Your task to perform on an android device: turn on notifications settings in the gmail app Image 0: 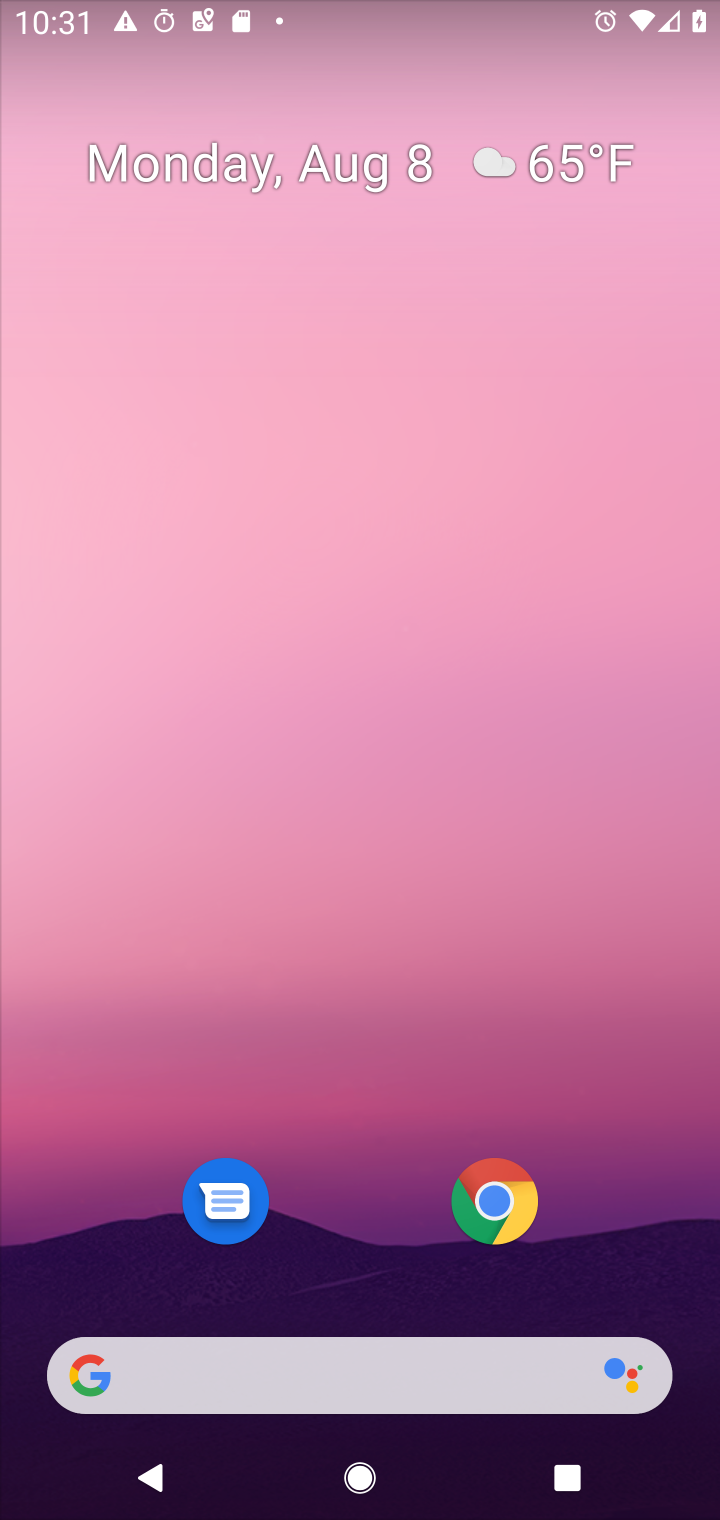
Step 0: press home button
Your task to perform on an android device: turn on notifications settings in the gmail app Image 1: 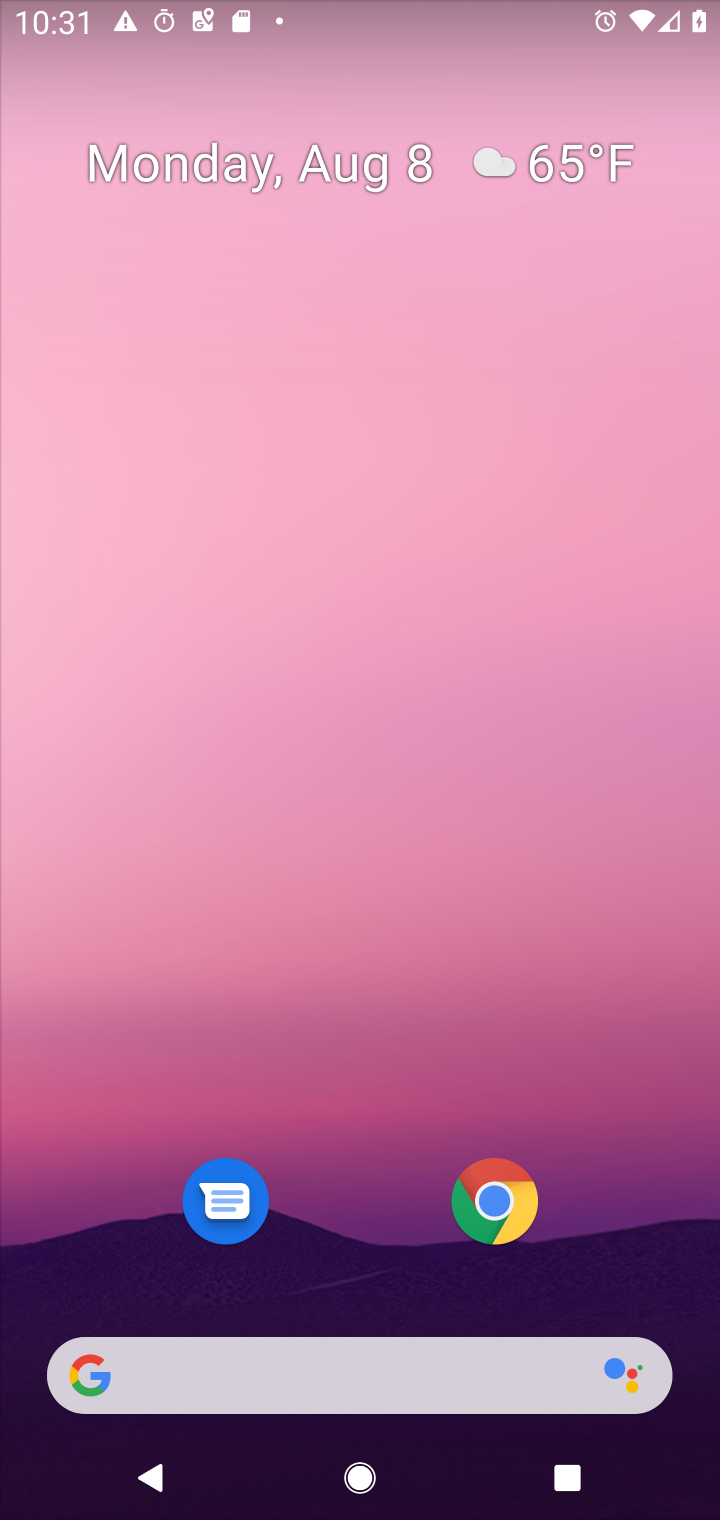
Step 1: drag from (382, 1112) to (390, 225)
Your task to perform on an android device: turn on notifications settings in the gmail app Image 2: 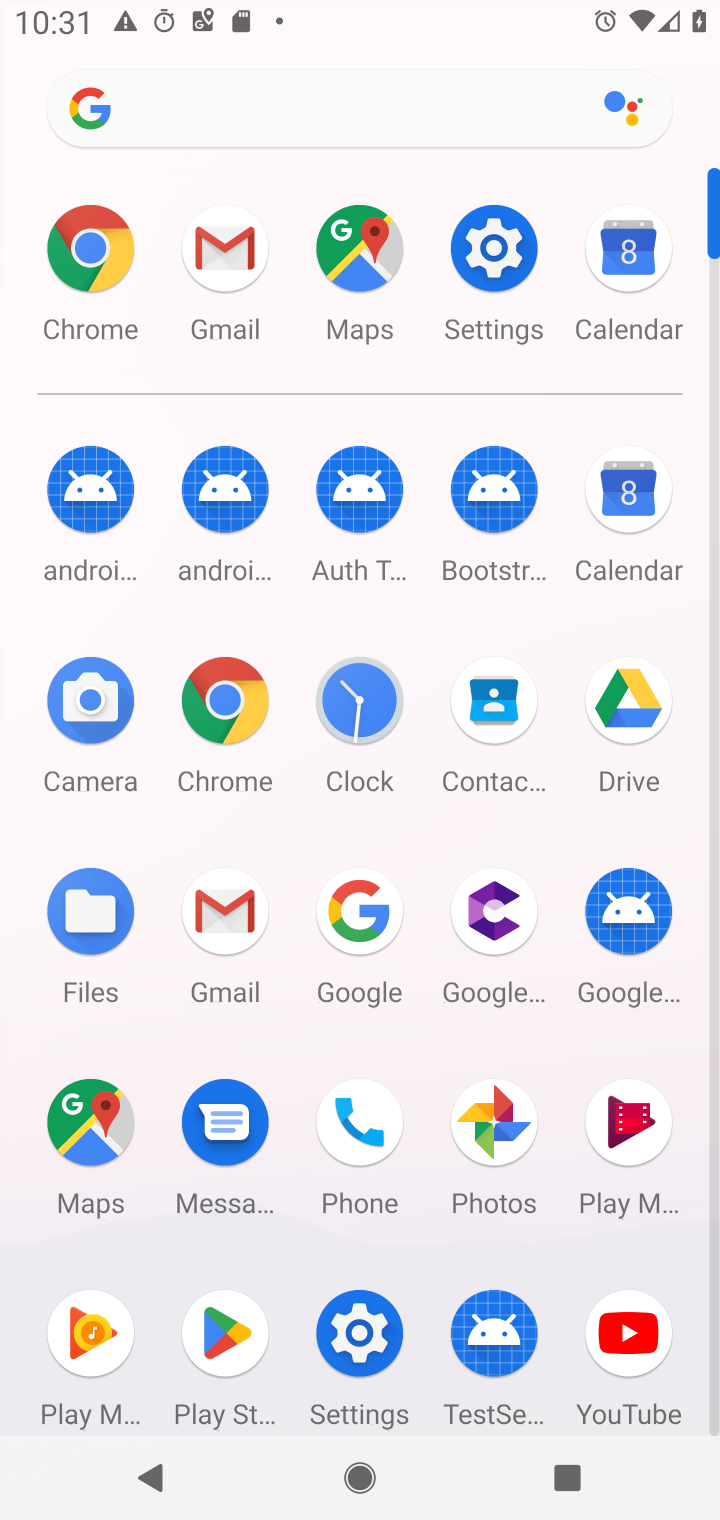
Step 2: click (216, 925)
Your task to perform on an android device: turn on notifications settings in the gmail app Image 3: 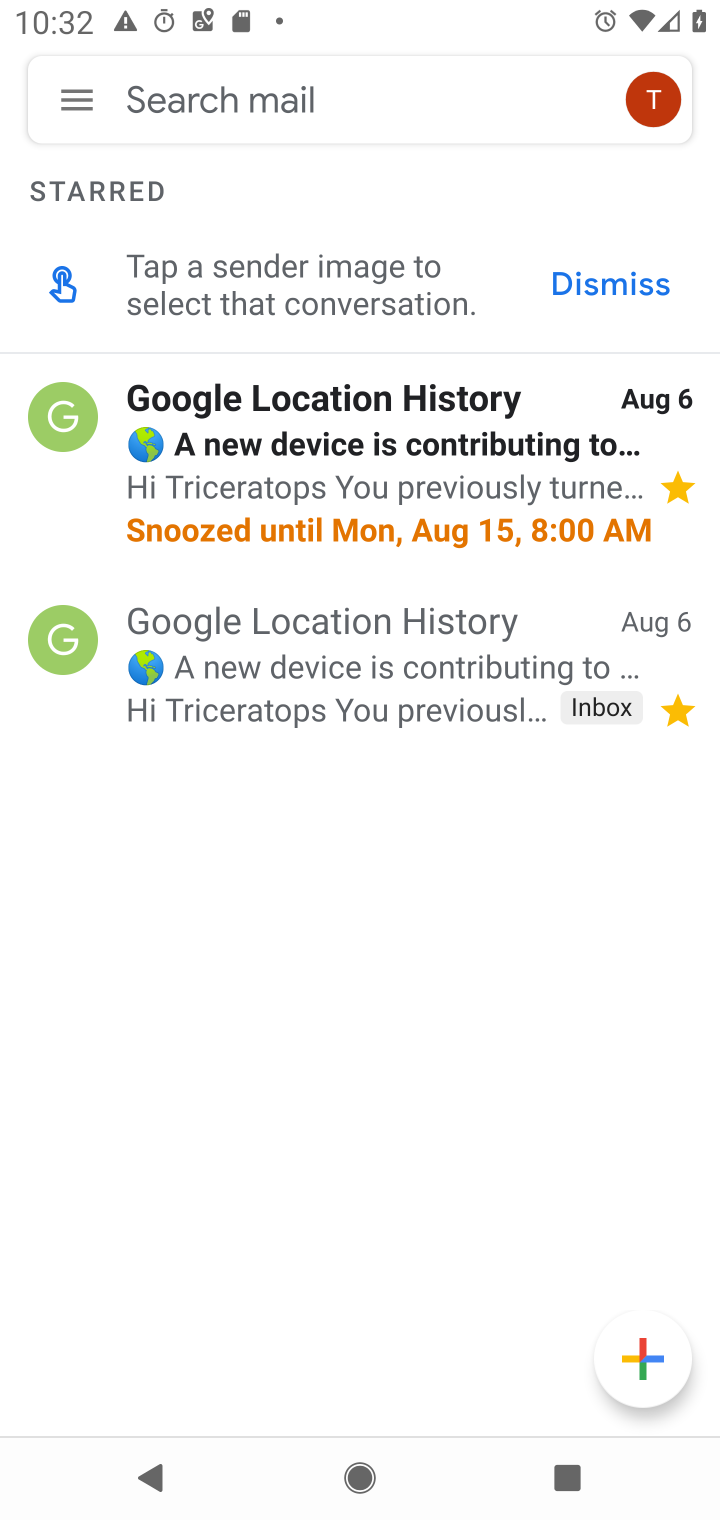
Step 3: click (78, 86)
Your task to perform on an android device: turn on notifications settings in the gmail app Image 4: 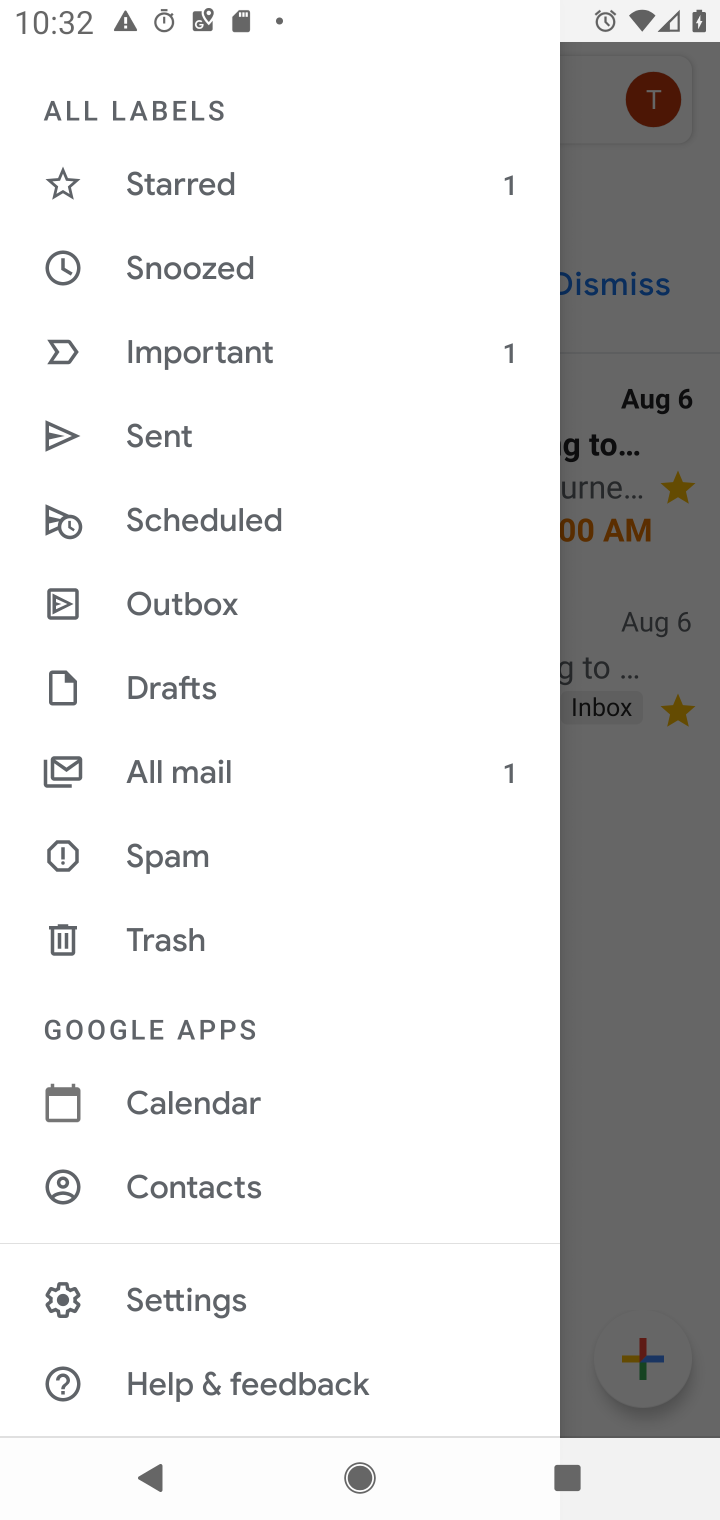
Step 4: drag from (410, 894) to (424, 585)
Your task to perform on an android device: turn on notifications settings in the gmail app Image 5: 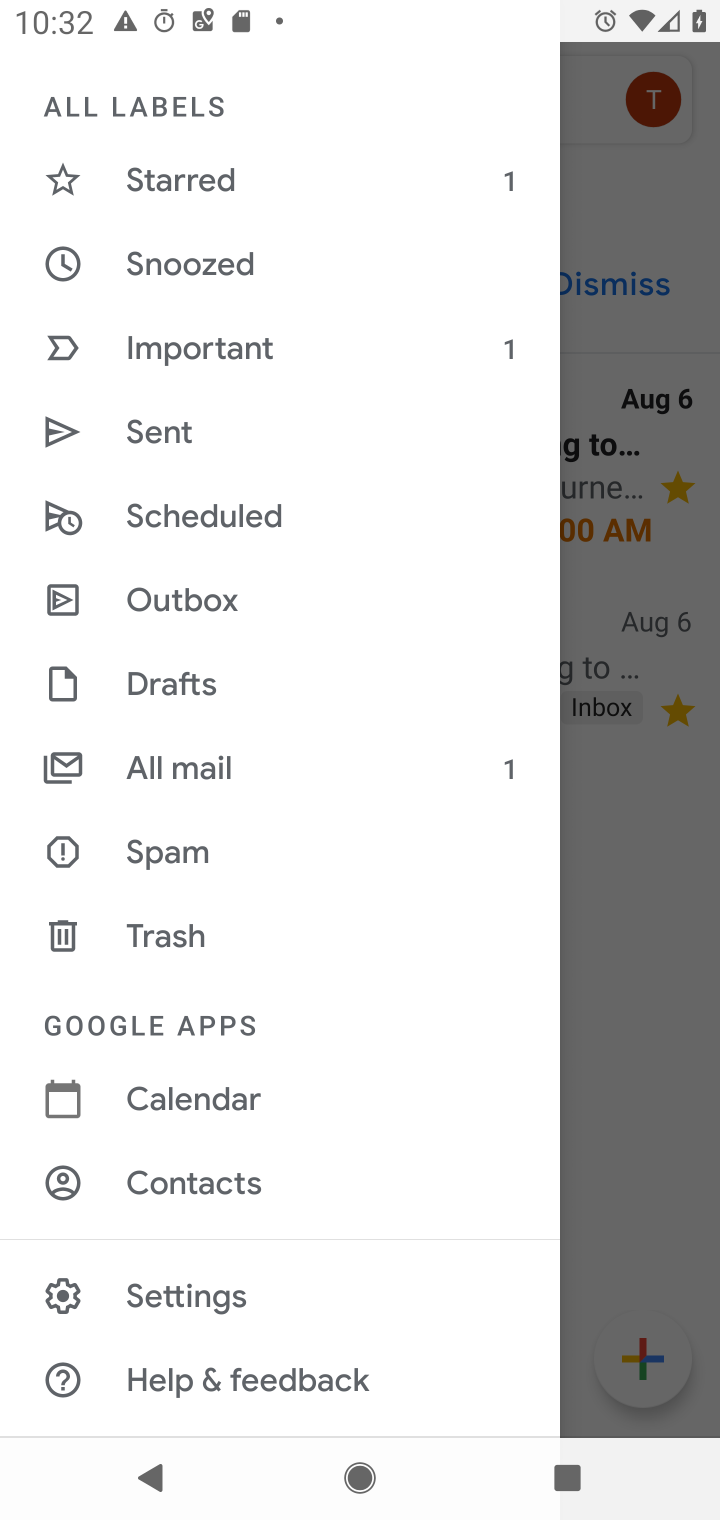
Step 5: click (257, 1290)
Your task to perform on an android device: turn on notifications settings in the gmail app Image 6: 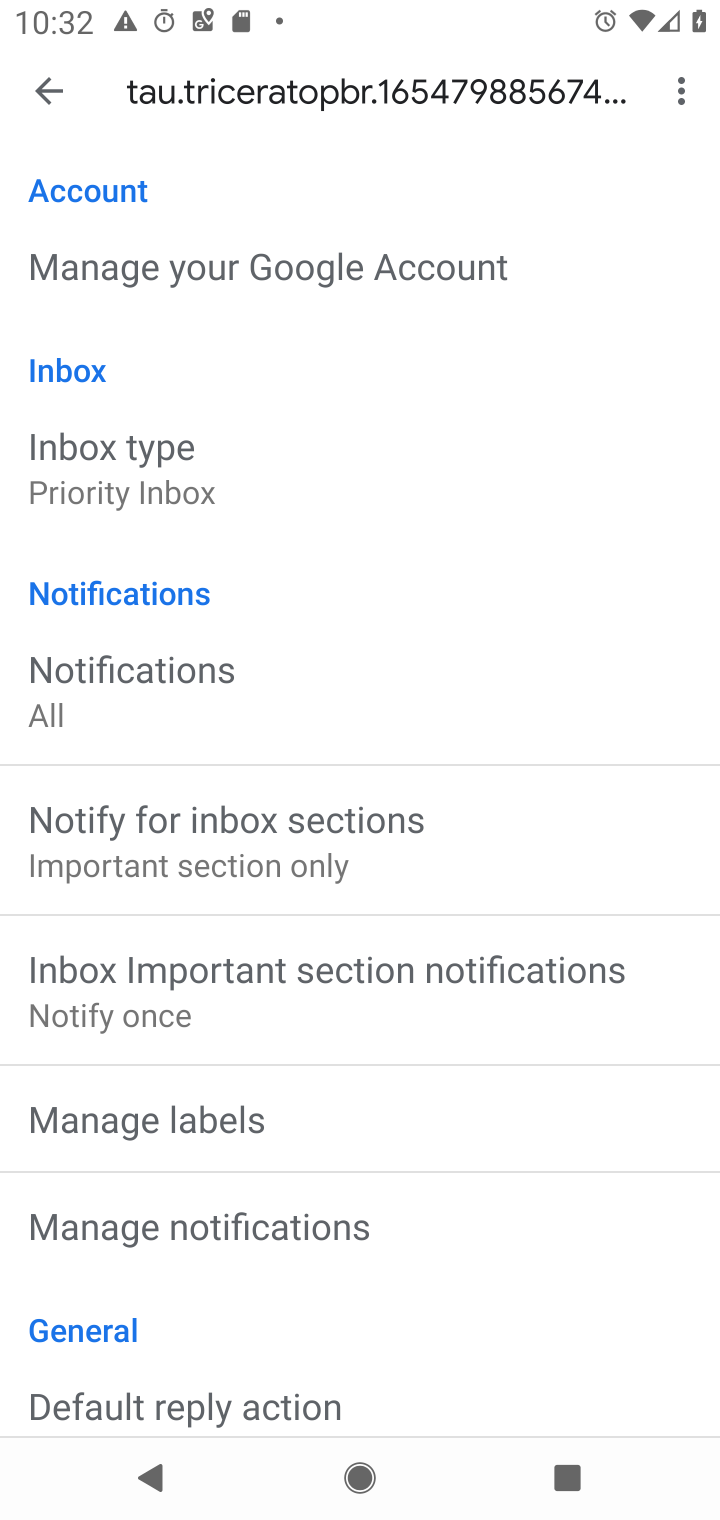
Step 6: click (412, 1225)
Your task to perform on an android device: turn on notifications settings in the gmail app Image 7: 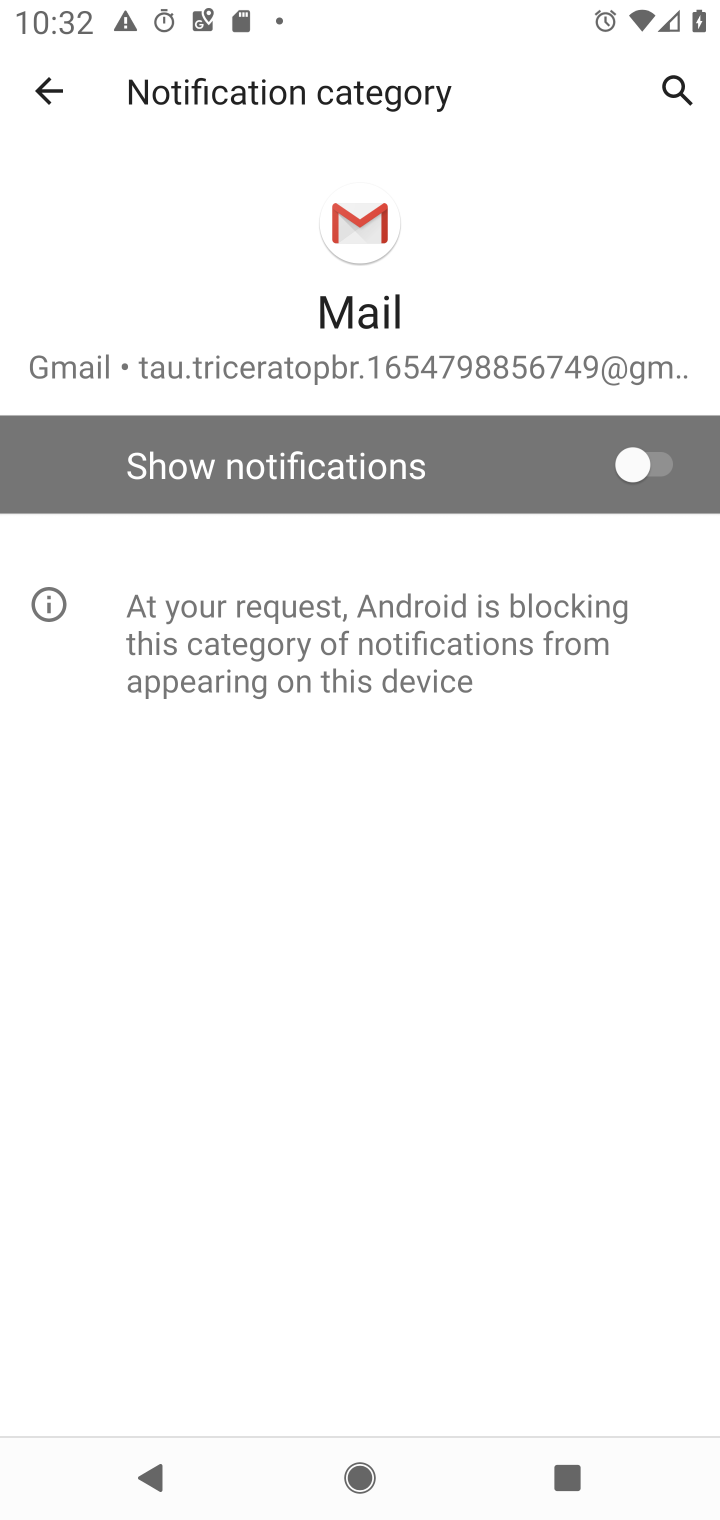
Step 7: click (629, 462)
Your task to perform on an android device: turn on notifications settings in the gmail app Image 8: 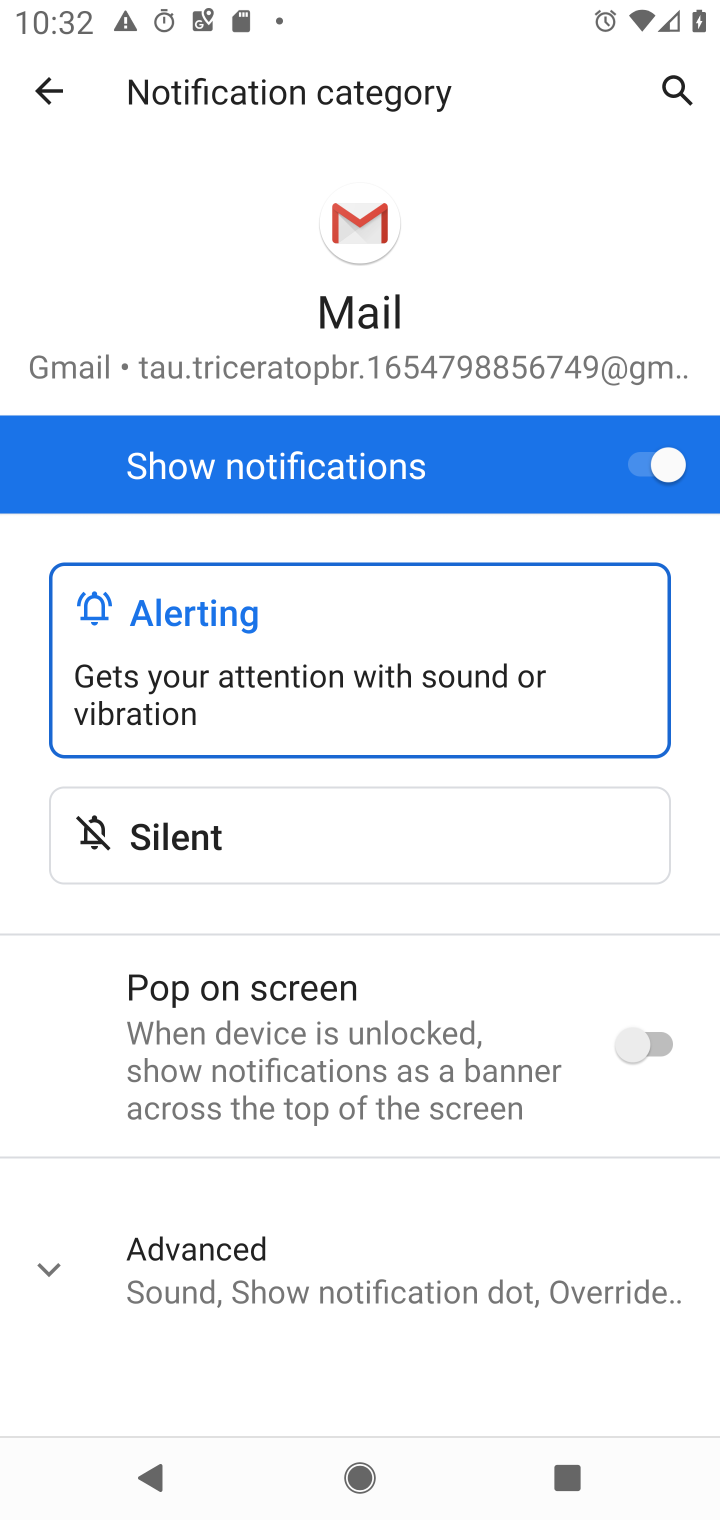
Step 8: task complete